Your task to perform on an android device: Add "amazon basics triple a" to the cart on ebay.com, then select checkout. Image 0: 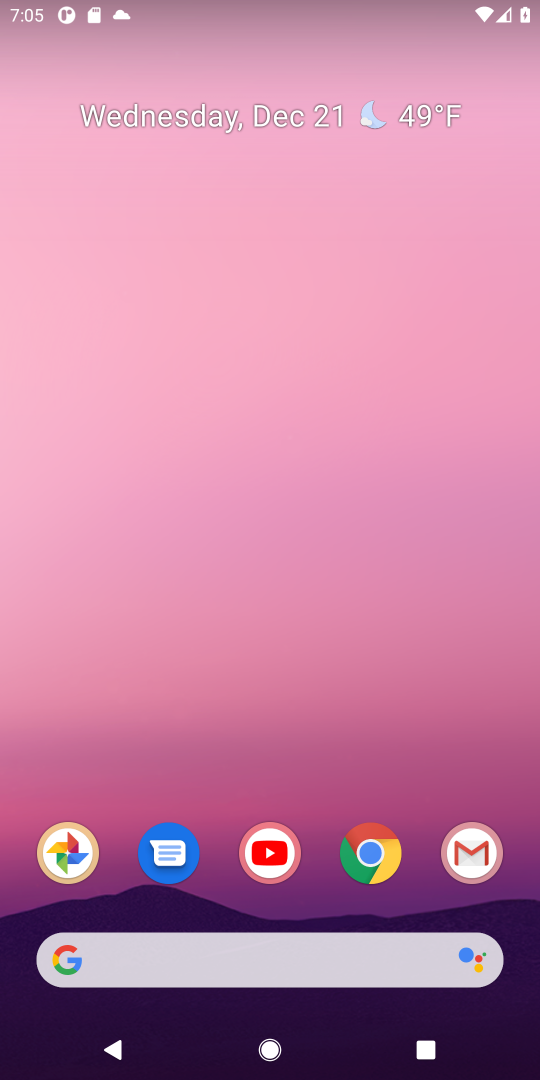
Step 0: click (369, 857)
Your task to perform on an android device: Add "amazon basics triple a" to the cart on ebay.com, then select checkout. Image 1: 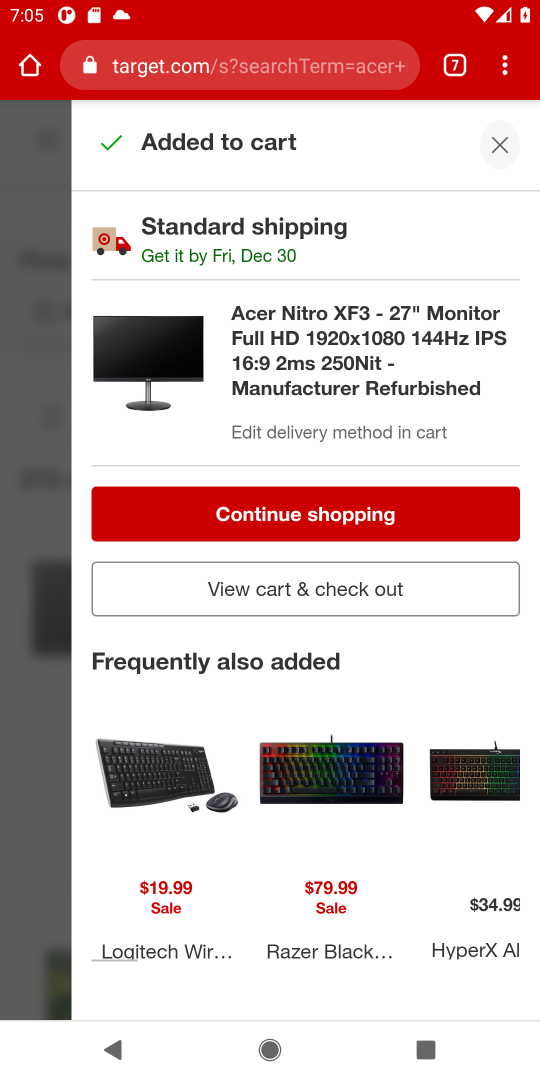
Step 1: click (454, 82)
Your task to perform on an android device: Add "amazon basics triple a" to the cart on ebay.com, then select checkout. Image 2: 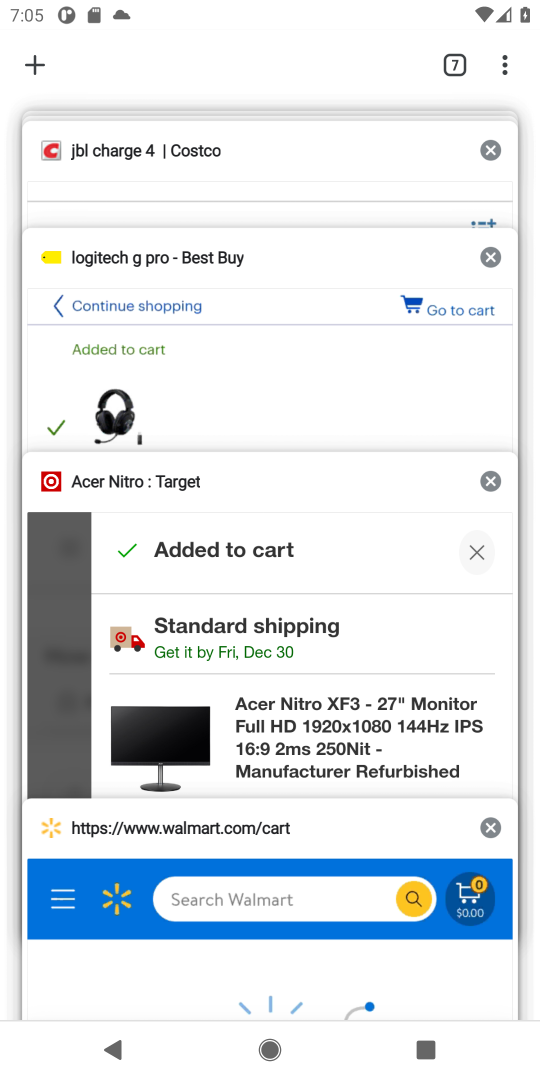
Step 2: drag from (280, 117) to (278, 395)
Your task to perform on an android device: Add "amazon basics triple a" to the cart on ebay.com, then select checkout. Image 3: 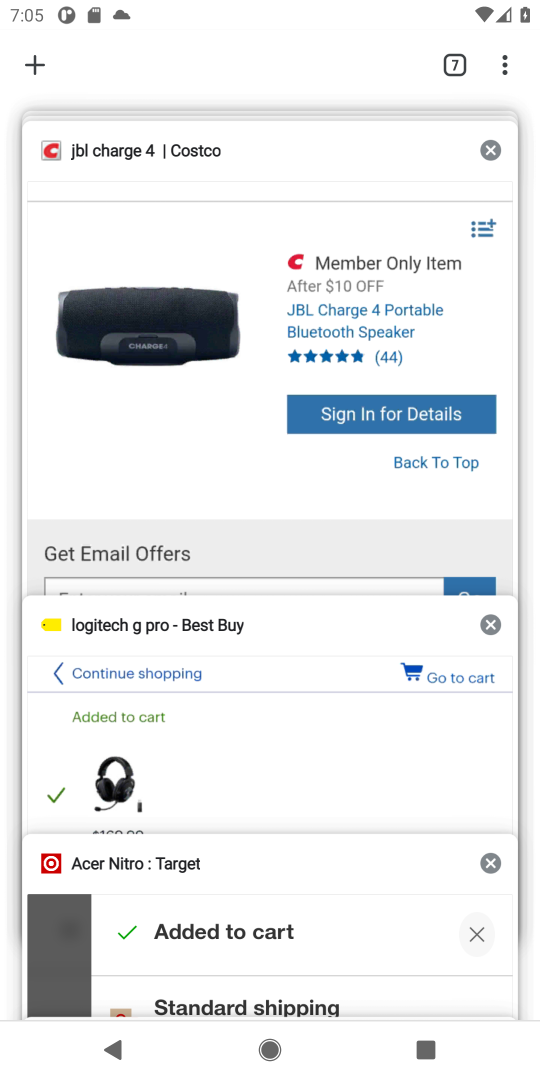
Step 3: drag from (257, 121) to (249, 310)
Your task to perform on an android device: Add "amazon basics triple a" to the cart on ebay.com, then select checkout. Image 4: 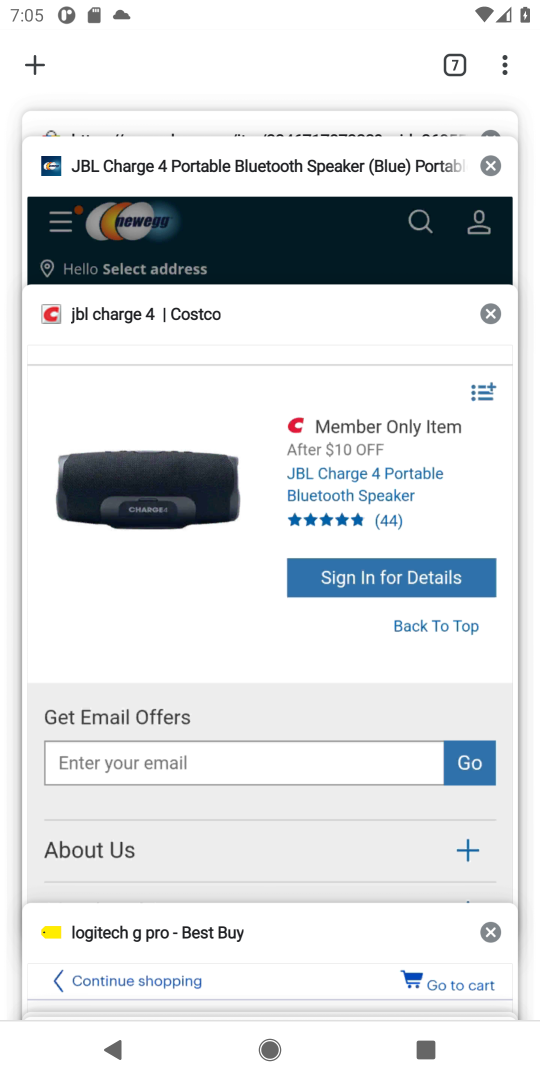
Step 4: drag from (246, 127) to (251, 412)
Your task to perform on an android device: Add "amazon basics triple a" to the cart on ebay.com, then select checkout. Image 5: 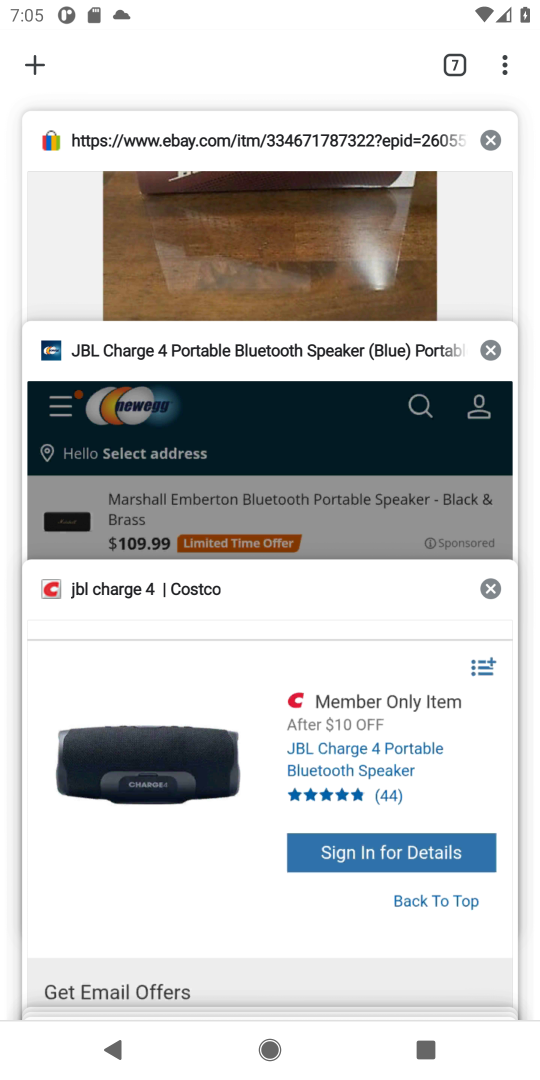
Step 5: click (244, 195)
Your task to perform on an android device: Add "amazon basics triple a" to the cart on ebay.com, then select checkout. Image 6: 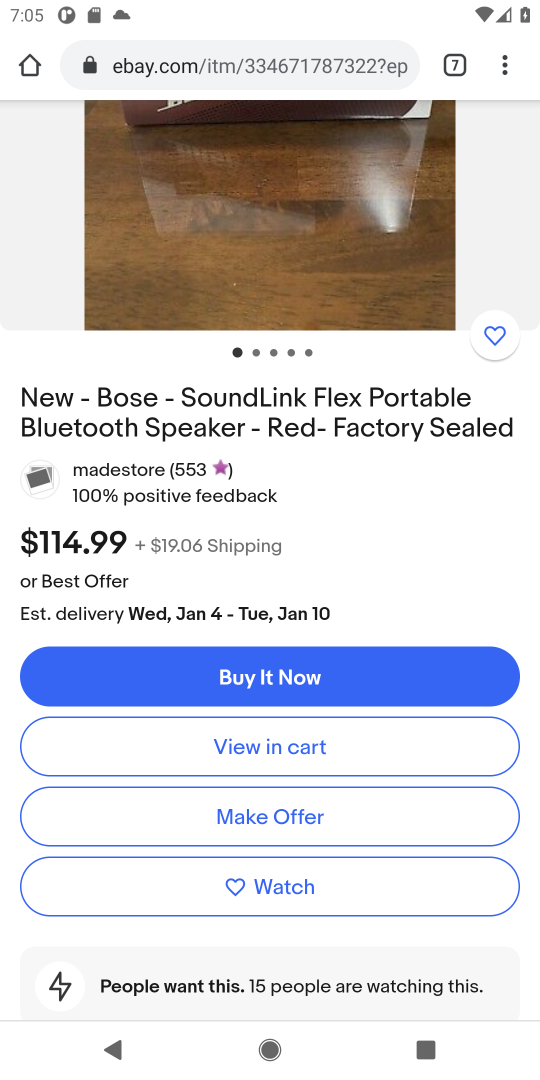
Step 6: drag from (482, 258) to (526, 581)
Your task to perform on an android device: Add "amazon basics triple a" to the cart on ebay.com, then select checkout. Image 7: 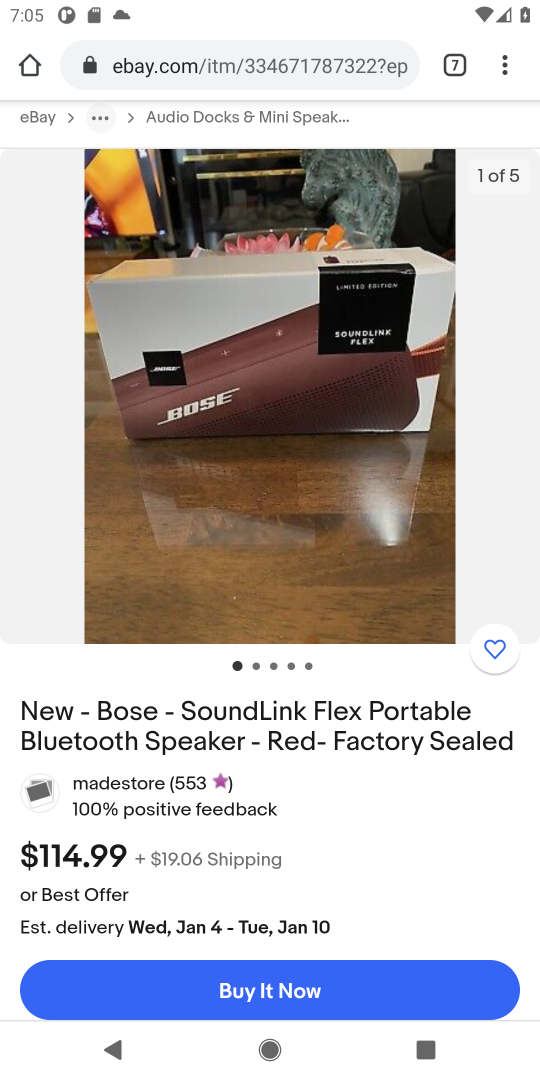
Step 7: drag from (493, 267) to (539, 639)
Your task to perform on an android device: Add "amazon basics triple a" to the cart on ebay.com, then select checkout. Image 8: 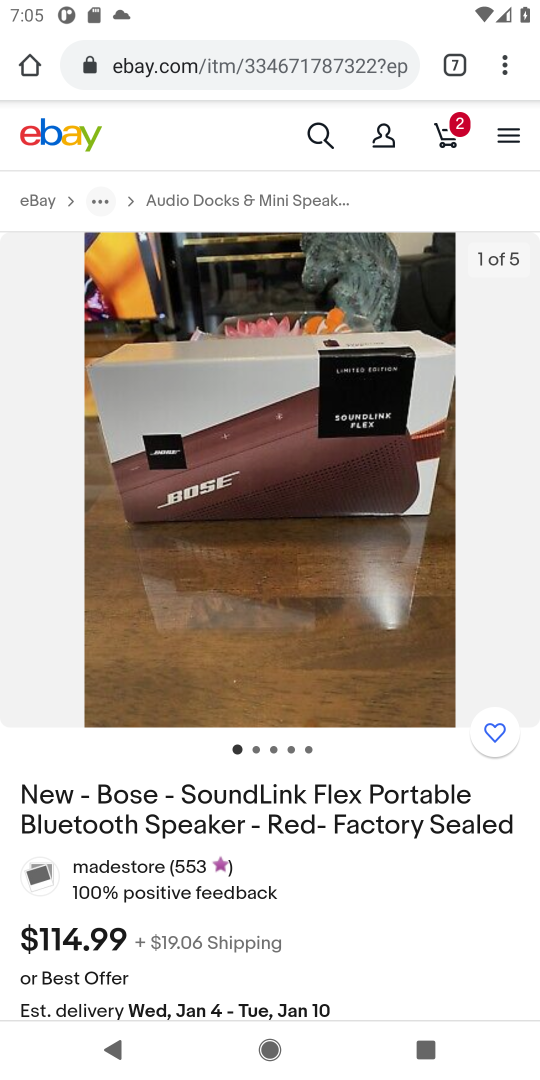
Step 8: click (320, 135)
Your task to perform on an android device: Add "amazon basics triple a" to the cart on ebay.com, then select checkout. Image 9: 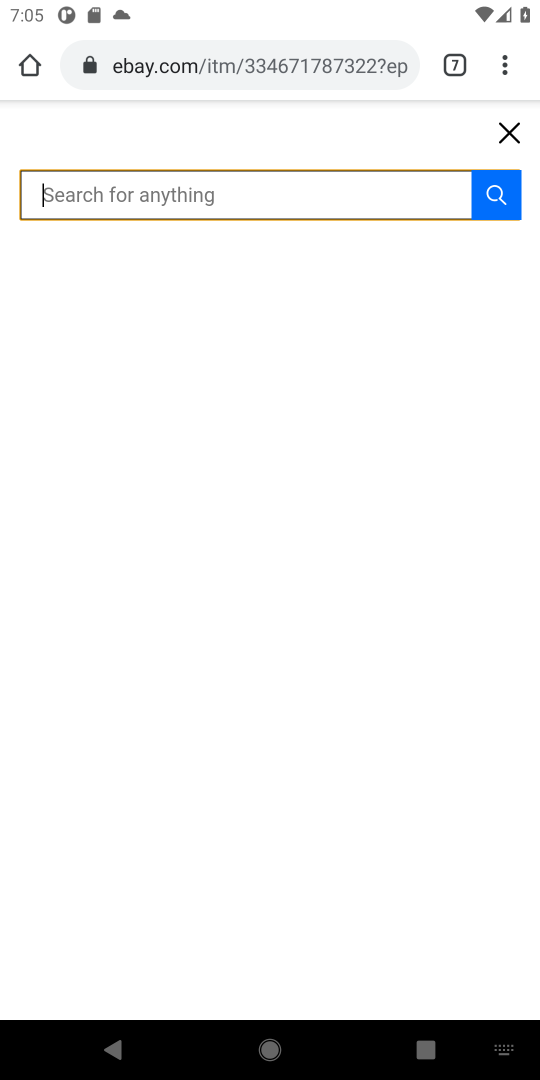
Step 9: type "amazon basics triple a"
Your task to perform on an android device: Add "amazon basics triple a" to the cart on ebay.com, then select checkout. Image 10: 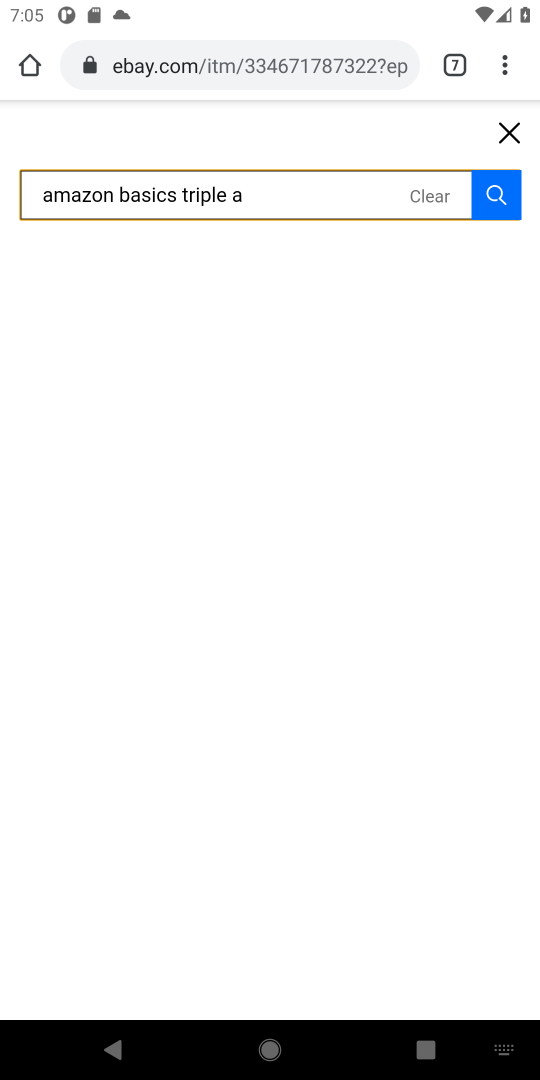
Step 10: type " batteries"
Your task to perform on an android device: Add "amazon basics triple a" to the cart on ebay.com, then select checkout. Image 11: 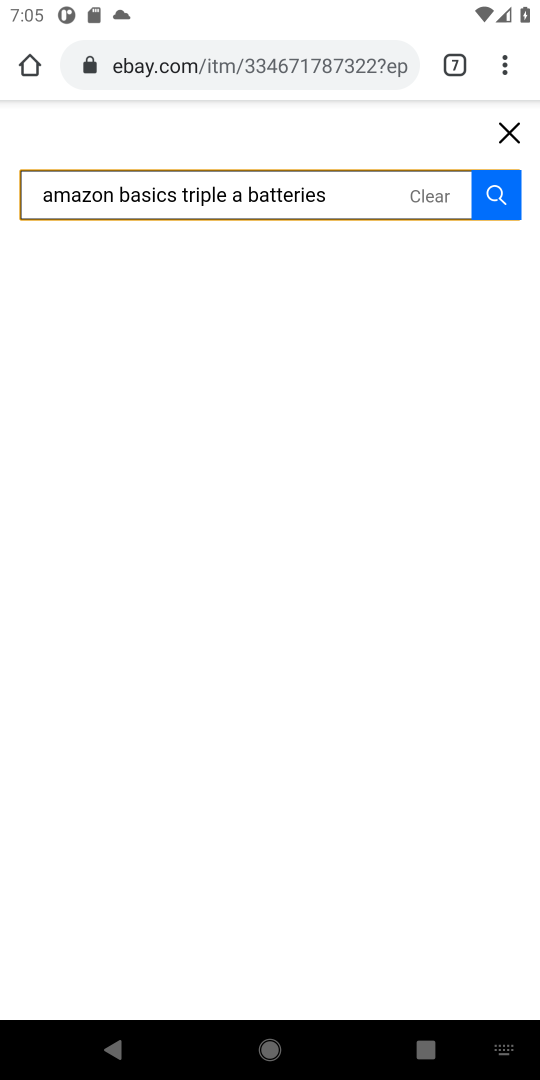
Step 11: click (491, 196)
Your task to perform on an android device: Add "amazon basics triple a" to the cart on ebay.com, then select checkout. Image 12: 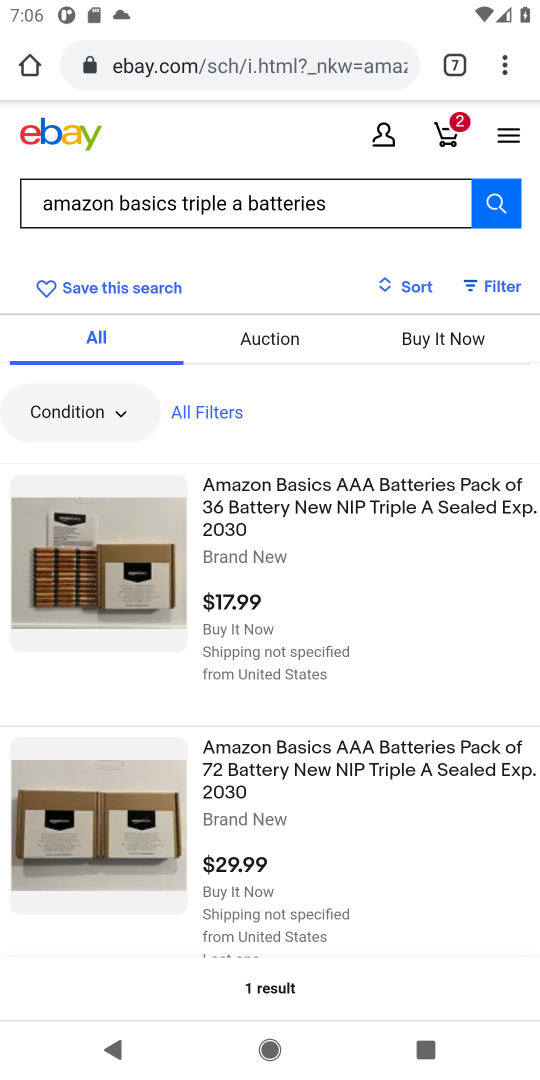
Step 12: click (323, 501)
Your task to perform on an android device: Add "amazon basics triple a" to the cart on ebay.com, then select checkout. Image 13: 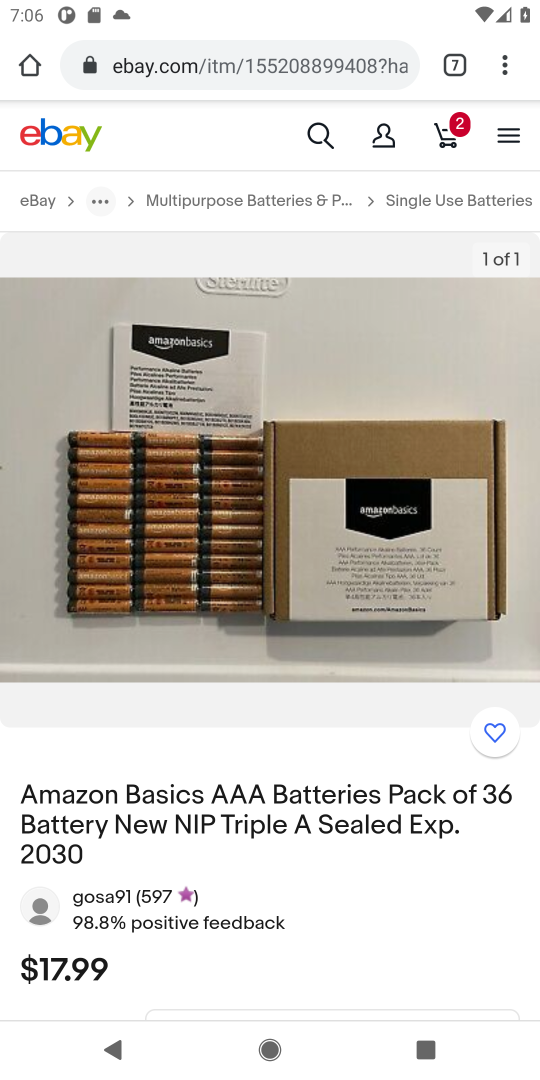
Step 13: drag from (321, 927) to (348, 206)
Your task to perform on an android device: Add "amazon basics triple a" to the cart on ebay.com, then select checkout. Image 14: 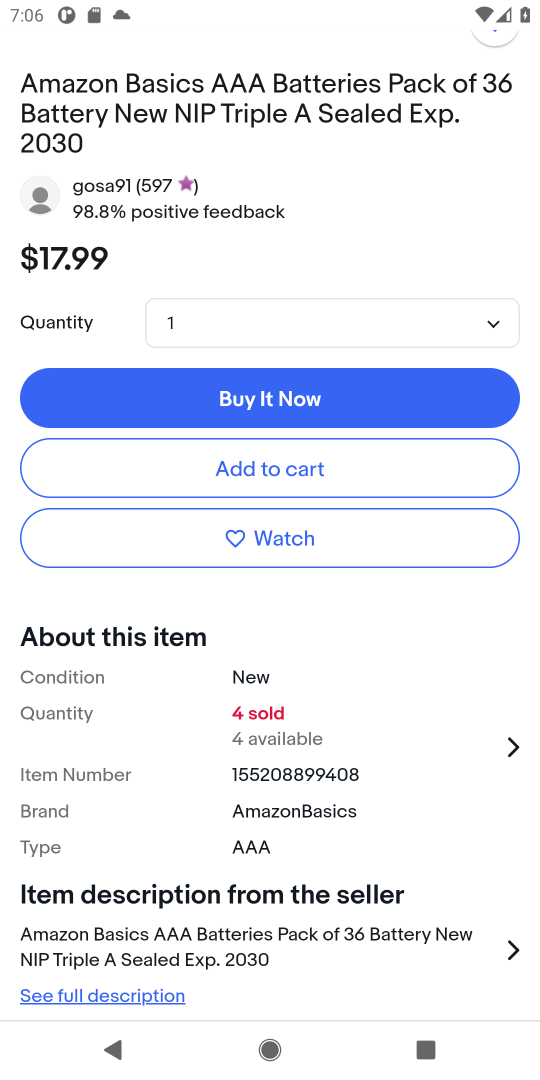
Step 14: click (261, 468)
Your task to perform on an android device: Add "amazon basics triple a" to the cart on ebay.com, then select checkout. Image 15: 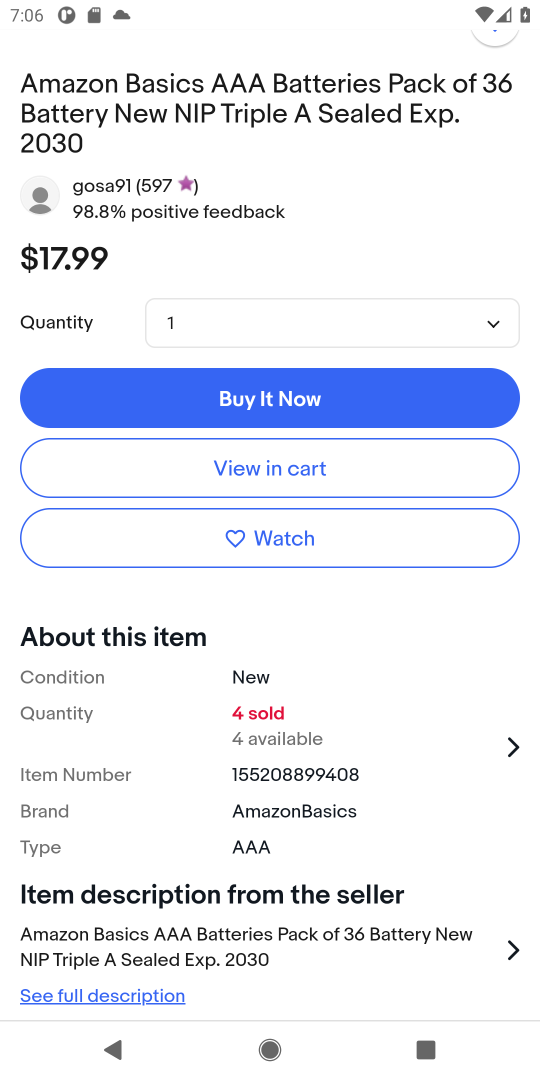
Step 15: task complete